Your task to perform on an android device: Open network settings Image 0: 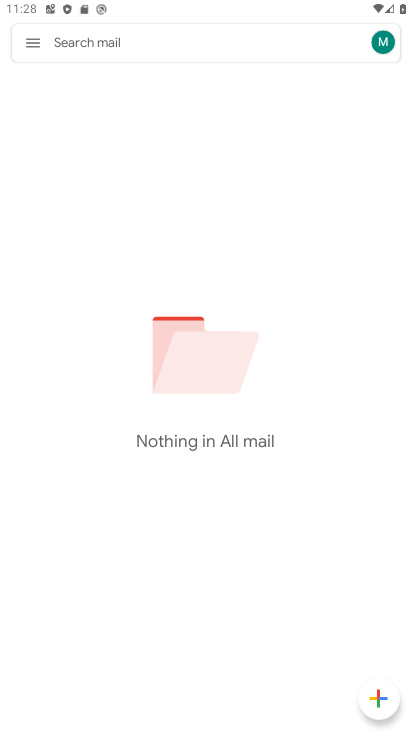
Step 0: press home button
Your task to perform on an android device: Open network settings Image 1: 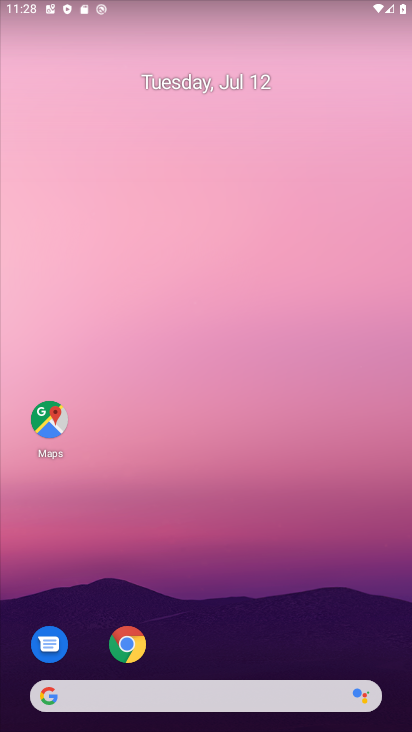
Step 1: drag from (207, 641) to (323, 16)
Your task to perform on an android device: Open network settings Image 2: 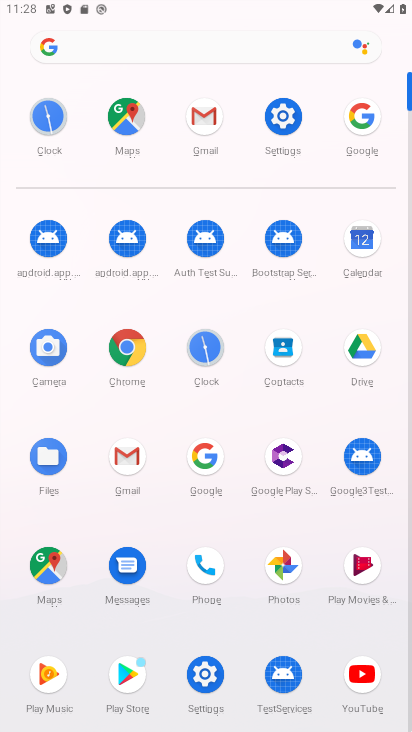
Step 2: click (290, 118)
Your task to perform on an android device: Open network settings Image 3: 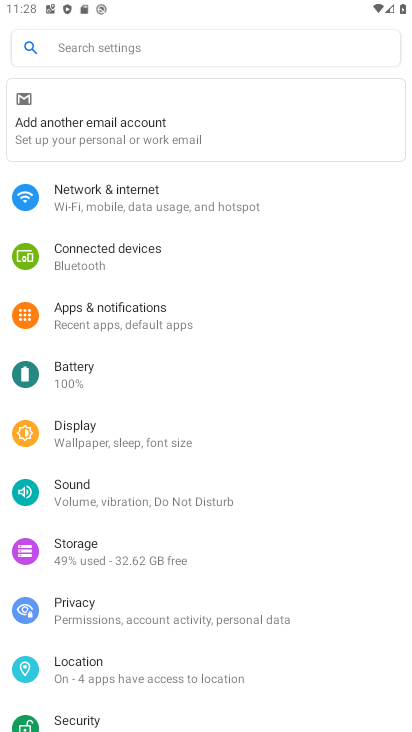
Step 3: click (186, 208)
Your task to perform on an android device: Open network settings Image 4: 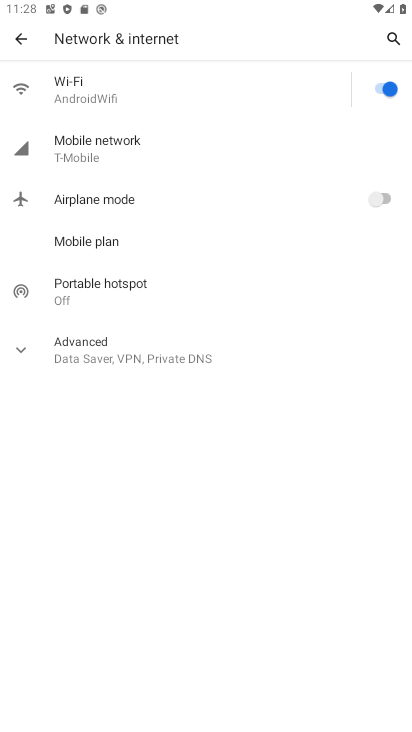
Step 4: task complete